Your task to perform on an android device: Open CNN.com Image 0: 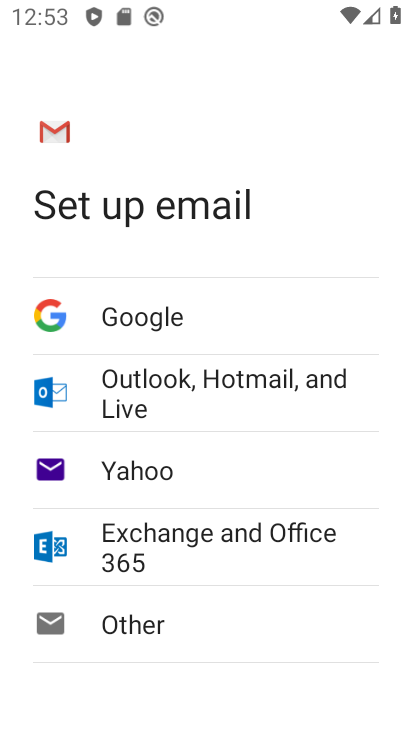
Step 0: press home button
Your task to perform on an android device: Open CNN.com Image 1: 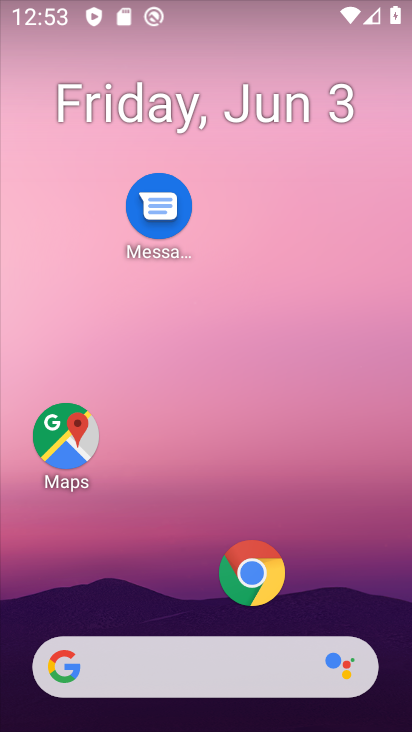
Step 1: click (250, 579)
Your task to perform on an android device: Open CNN.com Image 2: 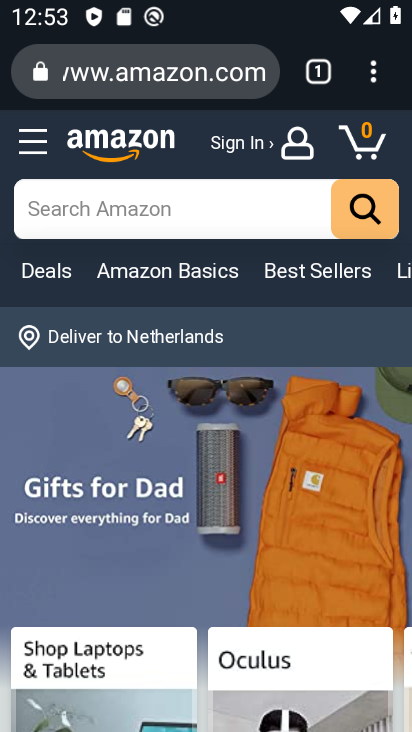
Step 2: click (311, 78)
Your task to perform on an android device: Open CNN.com Image 3: 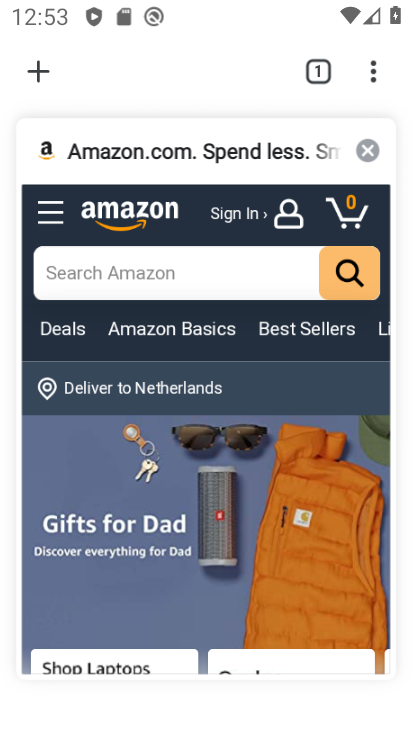
Step 3: click (362, 157)
Your task to perform on an android device: Open CNN.com Image 4: 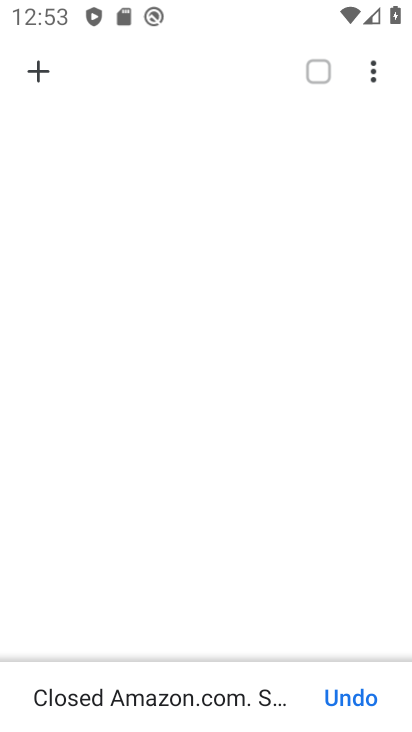
Step 4: click (41, 75)
Your task to perform on an android device: Open CNN.com Image 5: 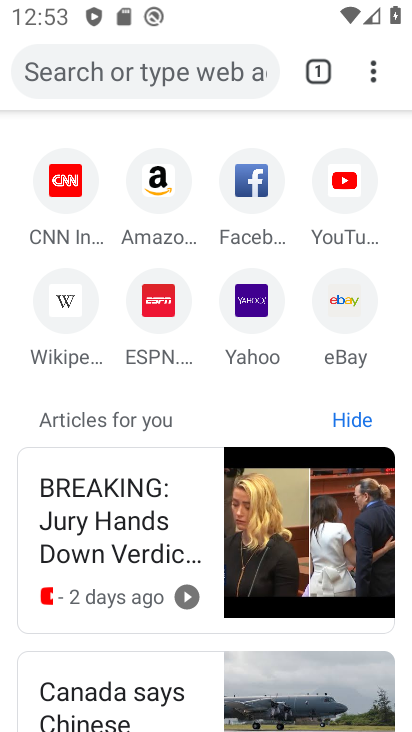
Step 5: click (73, 199)
Your task to perform on an android device: Open CNN.com Image 6: 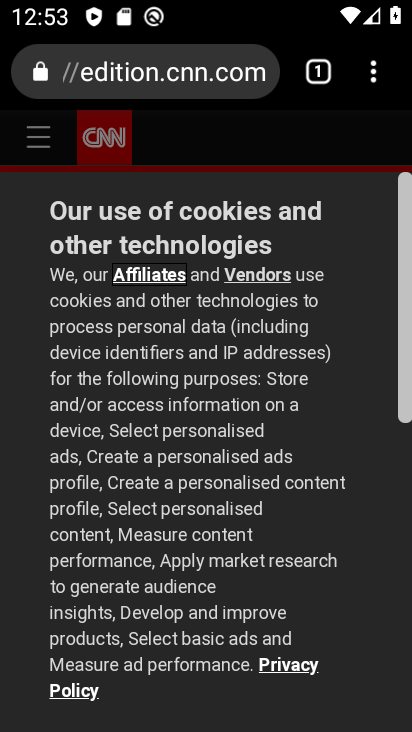
Step 6: drag from (404, 254) to (390, 720)
Your task to perform on an android device: Open CNN.com Image 7: 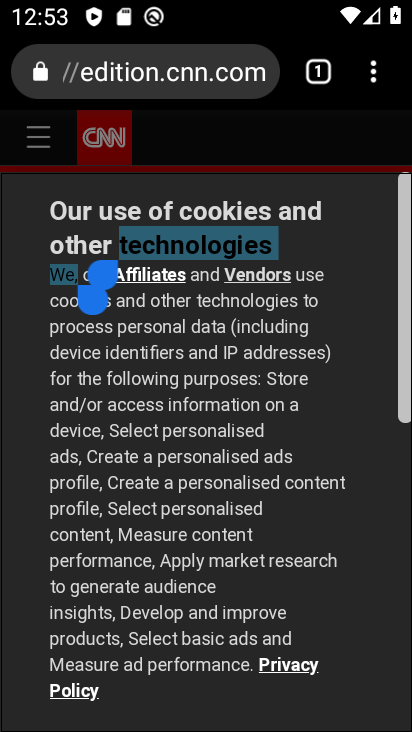
Step 7: click (345, 296)
Your task to perform on an android device: Open CNN.com Image 8: 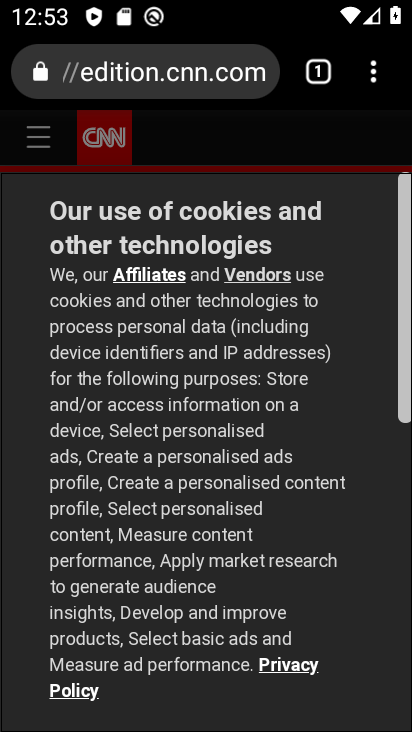
Step 8: drag from (406, 252) to (377, 696)
Your task to perform on an android device: Open CNN.com Image 9: 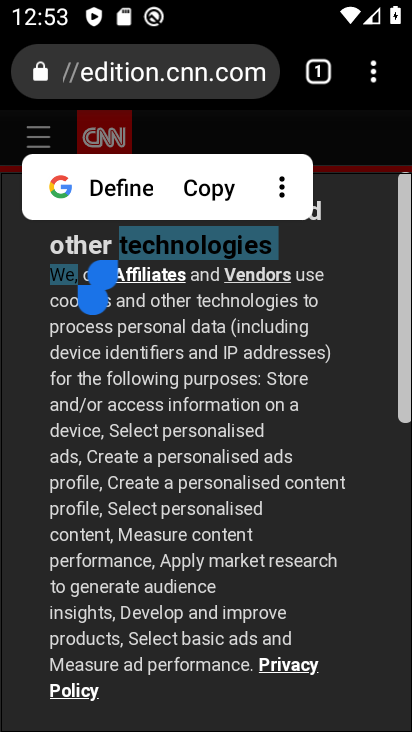
Step 9: click (359, 632)
Your task to perform on an android device: Open CNN.com Image 10: 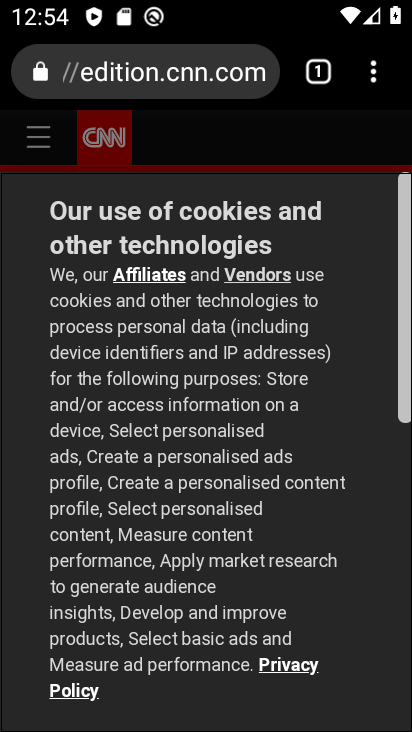
Step 10: click (355, 684)
Your task to perform on an android device: Open CNN.com Image 11: 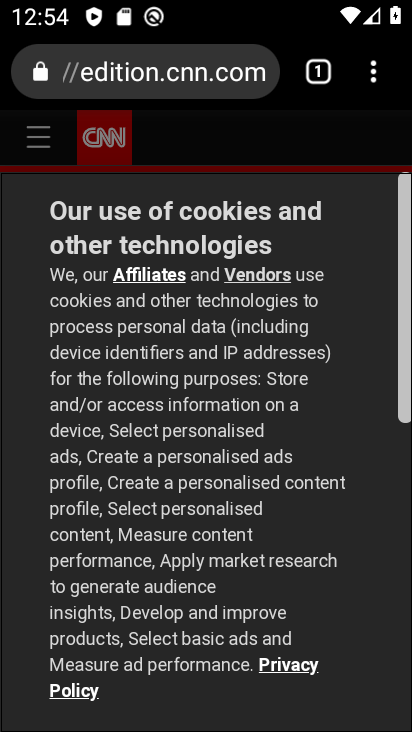
Step 11: drag from (404, 433) to (404, 473)
Your task to perform on an android device: Open CNN.com Image 12: 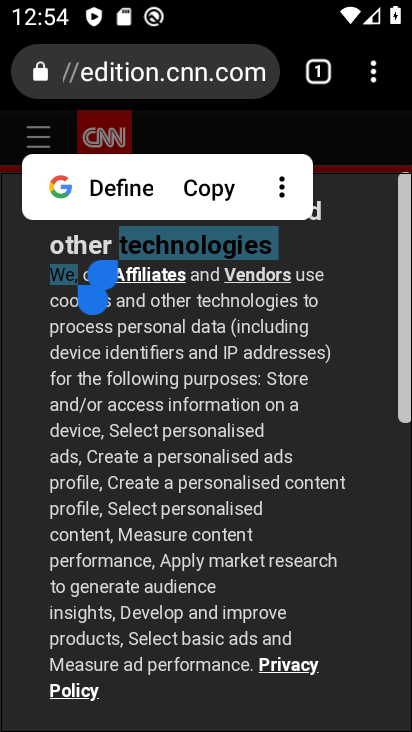
Step 12: click (399, 497)
Your task to perform on an android device: Open CNN.com Image 13: 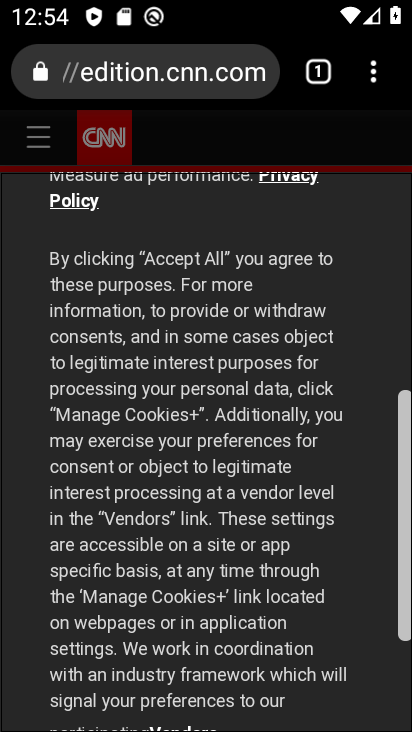
Step 13: task complete